Your task to perform on an android device: Open my contact list Image 0: 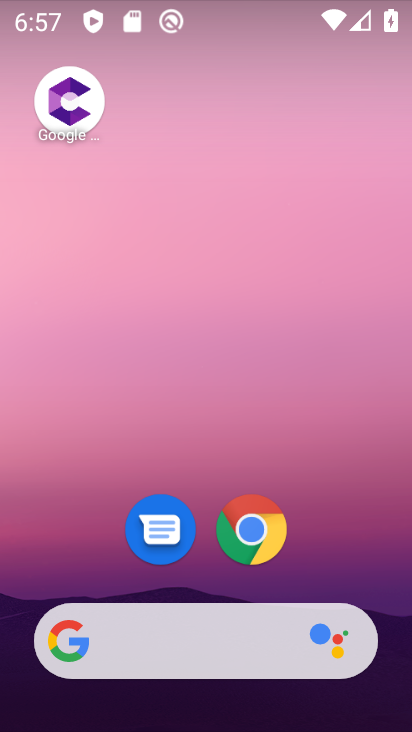
Step 0: drag from (337, 500) to (236, 122)
Your task to perform on an android device: Open my contact list Image 1: 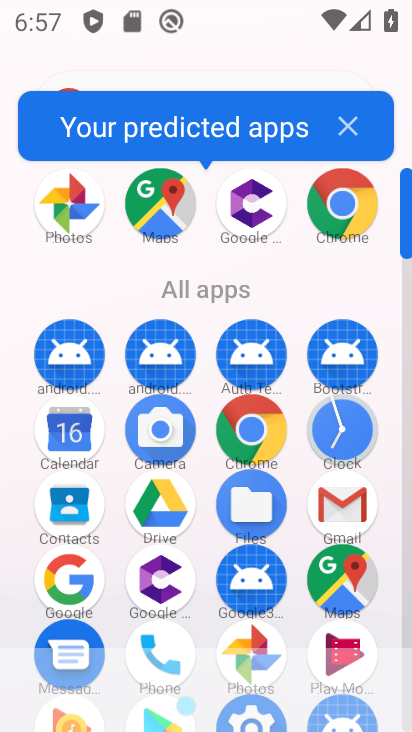
Step 1: click (67, 499)
Your task to perform on an android device: Open my contact list Image 2: 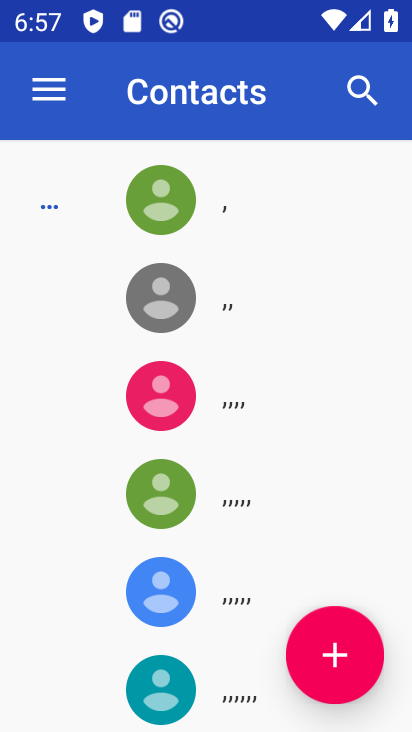
Step 2: task complete